Your task to perform on an android device: delete a single message in the gmail app Image 0: 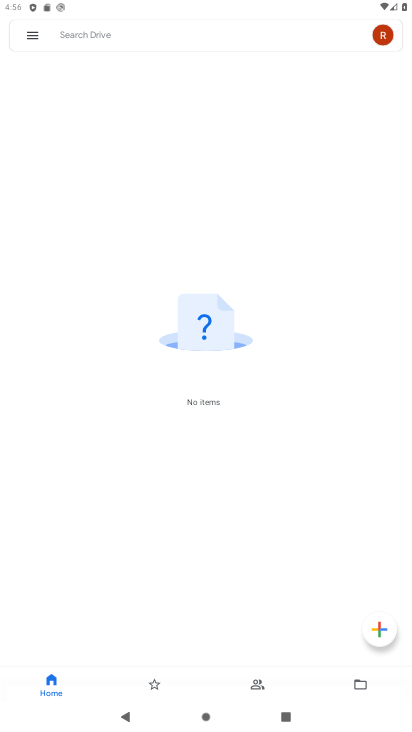
Step 0: press home button
Your task to perform on an android device: delete a single message in the gmail app Image 1: 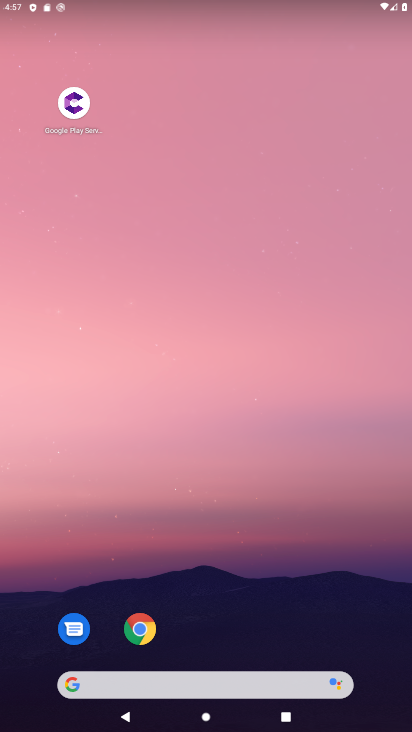
Step 1: drag from (248, 566) to (14, 82)
Your task to perform on an android device: delete a single message in the gmail app Image 2: 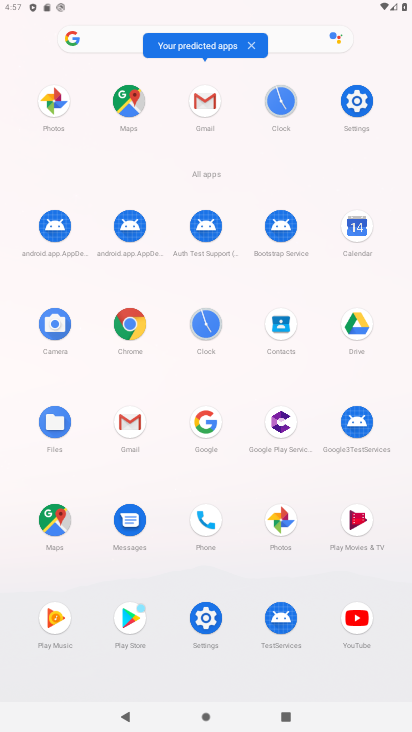
Step 2: click (129, 407)
Your task to perform on an android device: delete a single message in the gmail app Image 3: 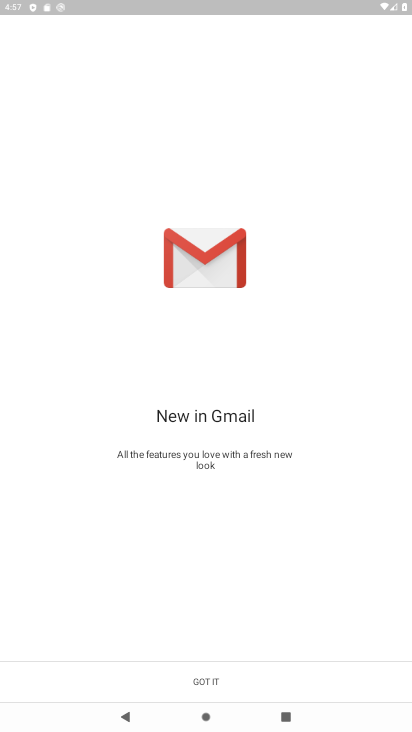
Step 3: click (204, 672)
Your task to perform on an android device: delete a single message in the gmail app Image 4: 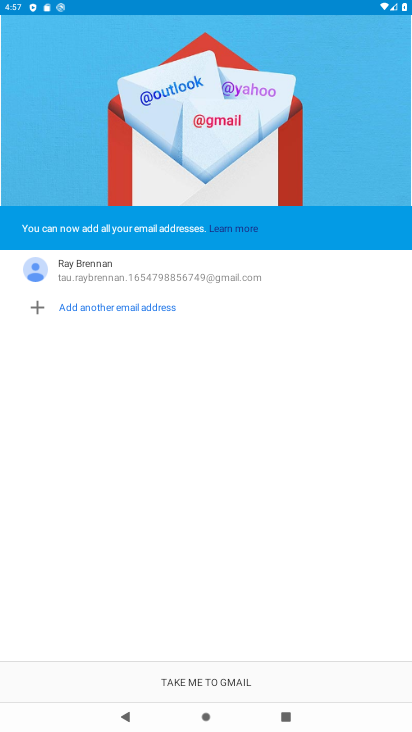
Step 4: click (204, 672)
Your task to perform on an android device: delete a single message in the gmail app Image 5: 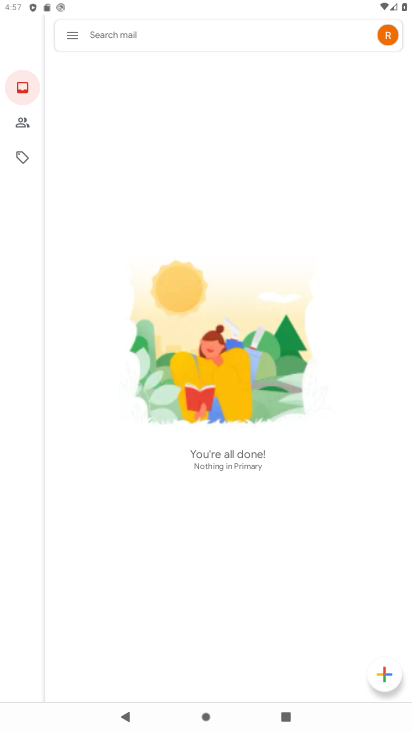
Step 5: task complete